Your task to perform on an android device: find which apps use the phone's location Image 0: 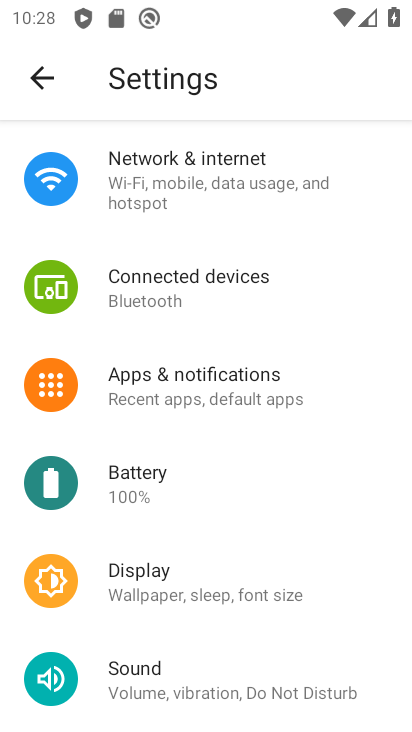
Step 0: press home button
Your task to perform on an android device: find which apps use the phone's location Image 1: 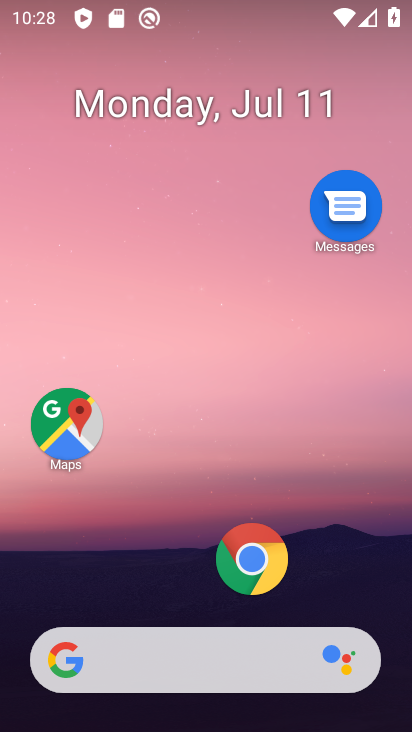
Step 1: drag from (356, 571) to (351, 140)
Your task to perform on an android device: find which apps use the phone's location Image 2: 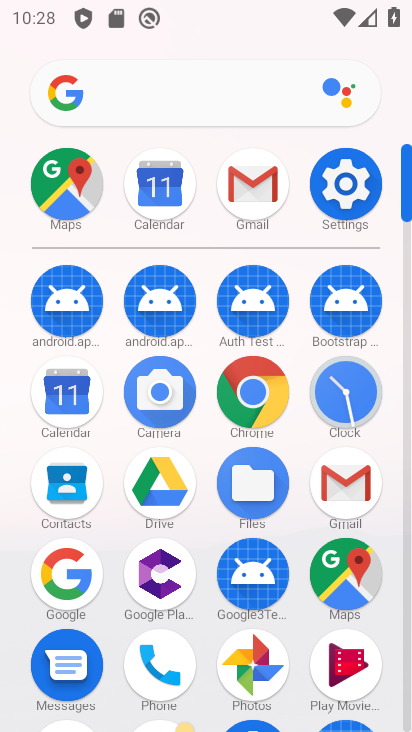
Step 2: click (354, 207)
Your task to perform on an android device: find which apps use the phone's location Image 3: 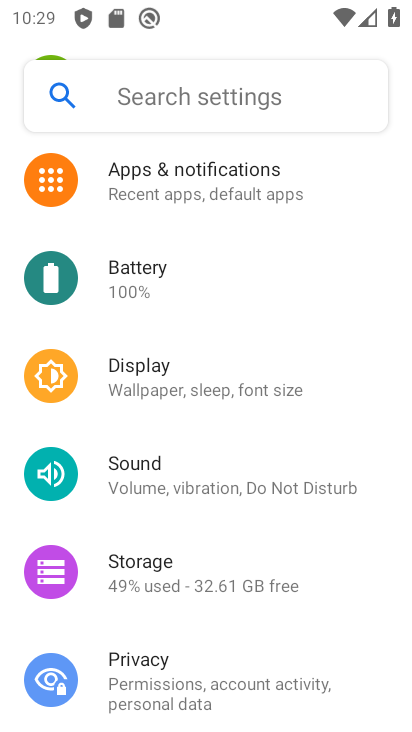
Step 3: drag from (335, 561) to (316, 365)
Your task to perform on an android device: find which apps use the phone's location Image 4: 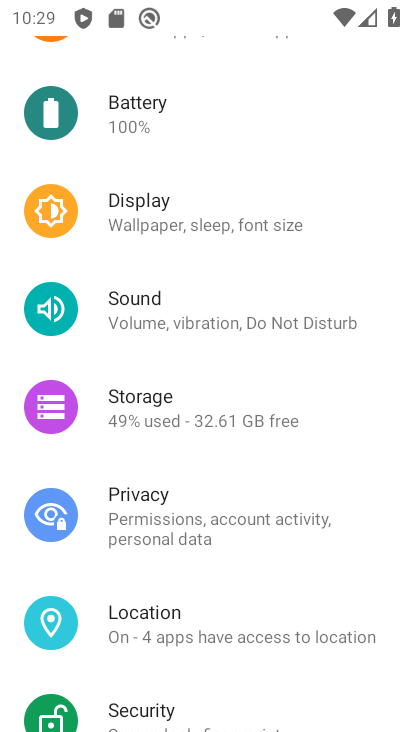
Step 4: drag from (338, 600) to (337, 422)
Your task to perform on an android device: find which apps use the phone's location Image 5: 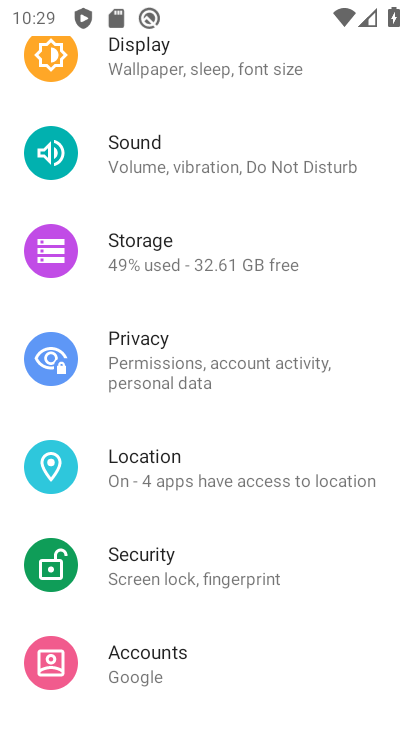
Step 5: drag from (345, 612) to (350, 428)
Your task to perform on an android device: find which apps use the phone's location Image 6: 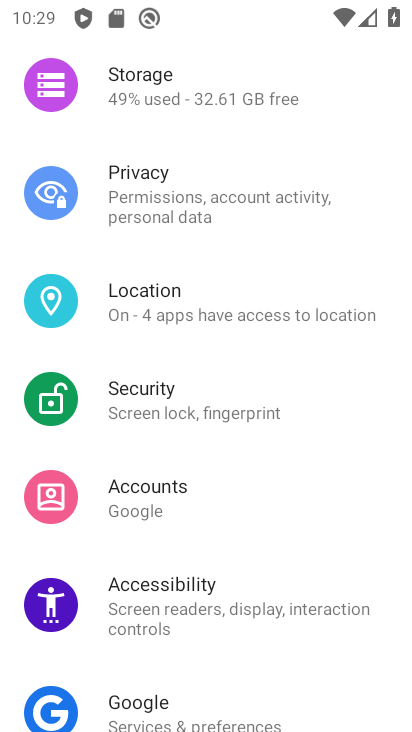
Step 6: drag from (315, 638) to (339, 421)
Your task to perform on an android device: find which apps use the phone's location Image 7: 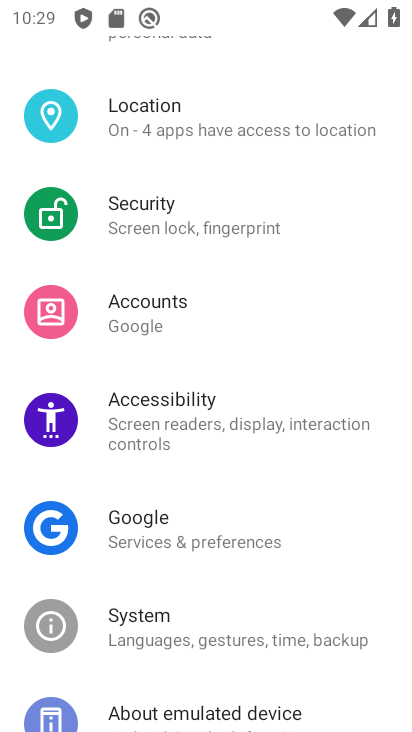
Step 7: drag from (346, 331) to (312, 669)
Your task to perform on an android device: find which apps use the phone's location Image 8: 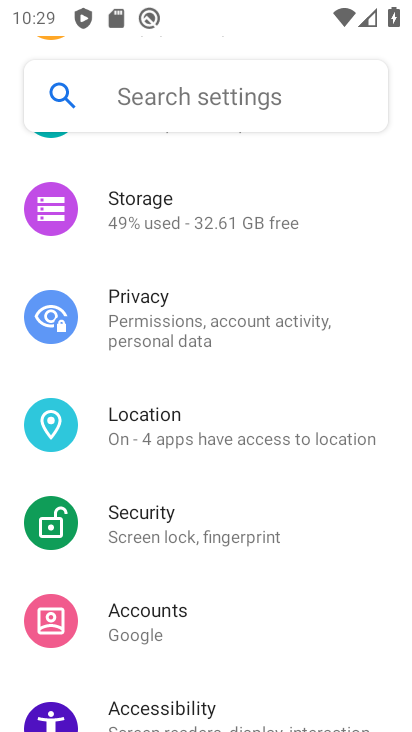
Step 8: drag from (346, 323) to (333, 590)
Your task to perform on an android device: find which apps use the phone's location Image 9: 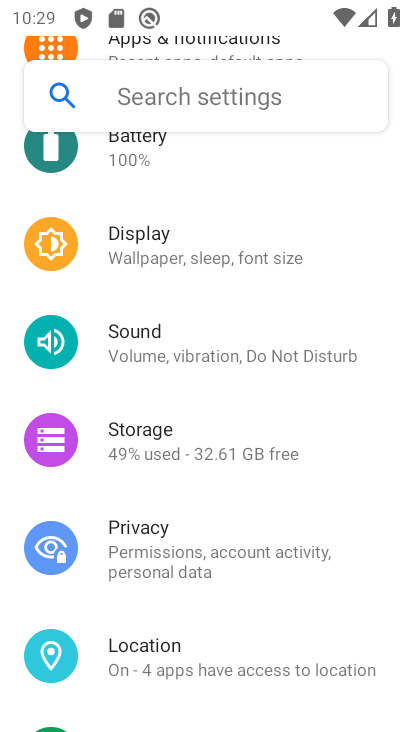
Step 9: drag from (339, 237) to (337, 436)
Your task to perform on an android device: find which apps use the phone's location Image 10: 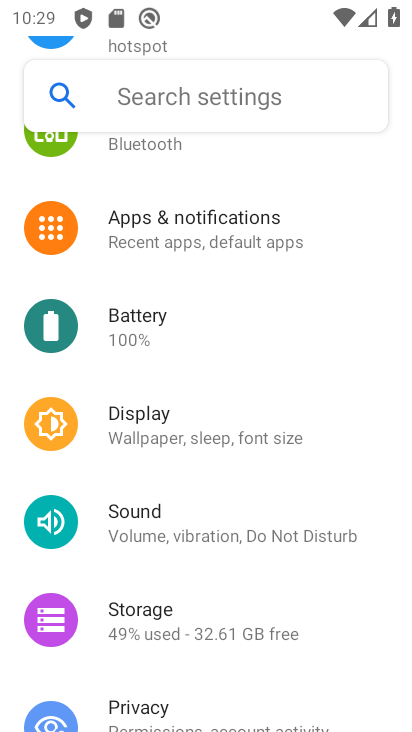
Step 10: drag from (337, 232) to (333, 425)
Your task to perform on an android device: find which apps use the phone's location Image 11: 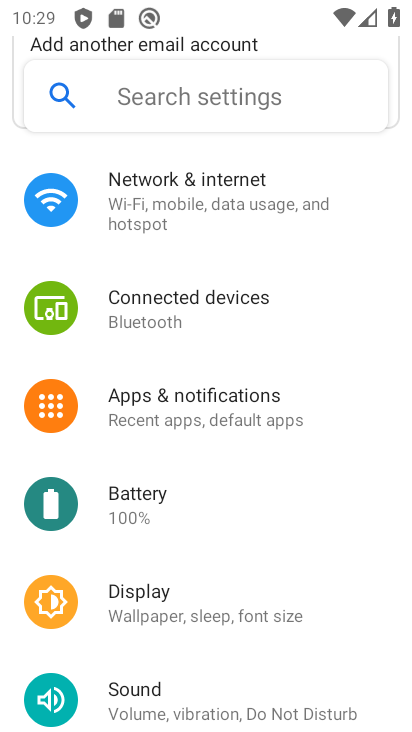
Step 11: drag from (323, 251) to (332, 457)
Your task to perform on an android device: find which apps use the phone's location Image 12: 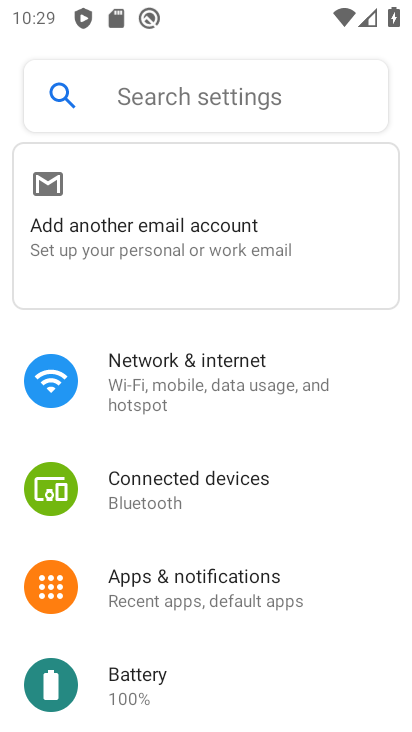
Step 12: drag from (350, 330) to (346, 506)
Your task to perform on an android device: find which apps use the phone's location Image 13: 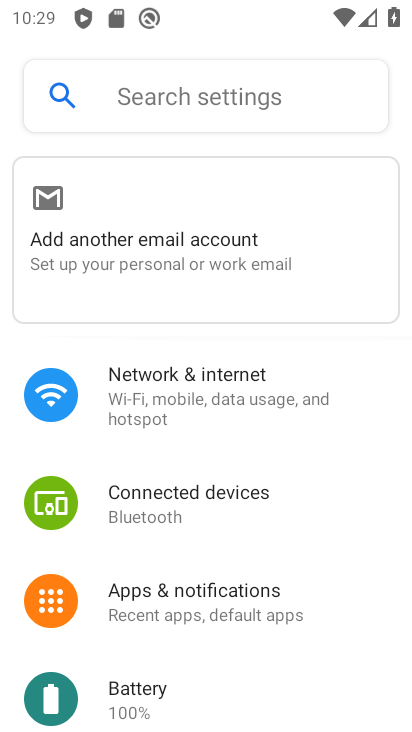
Step 13: drag from (339, 567) to (341, 410)
Your task to perform on an android device: find which apps use the phone's location Image 14: 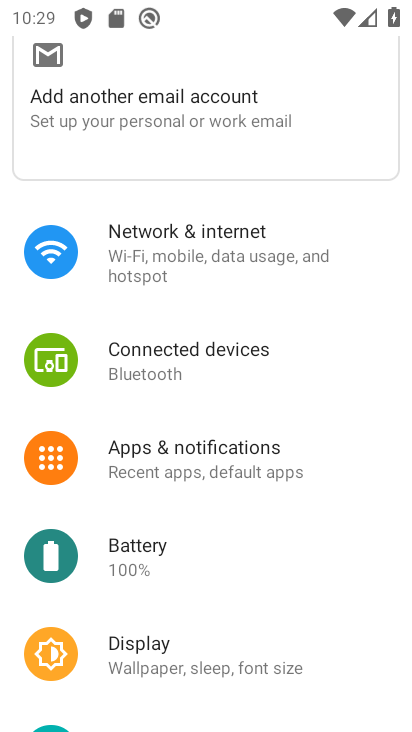
Step 14: drag from (324, 578) to (322, 389)
Your task to perform on an android device: find which apps use the phone's location Image 15: 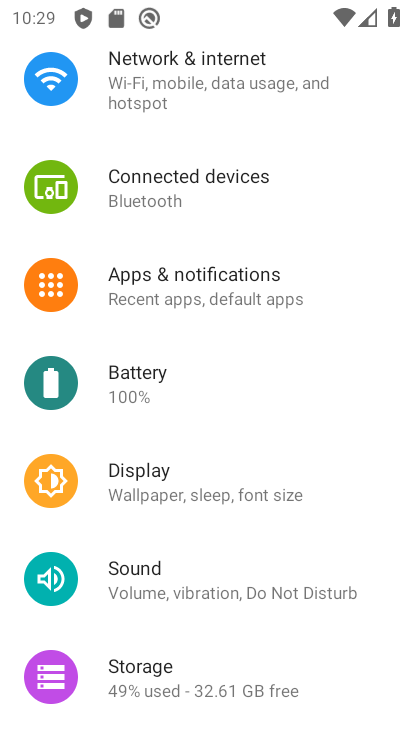
Step 15: drag from (324, 539) to (333, 315)
Your task to perform on an android device: find which apps use the phone's location Image 16: 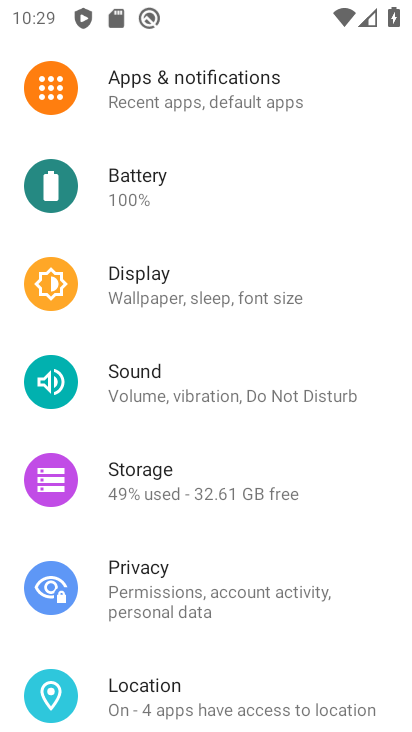
Step 16: drag from (342, 660) to (338, 417)
Your task to perform on an android device: find which apps use the phone's location Image 17: 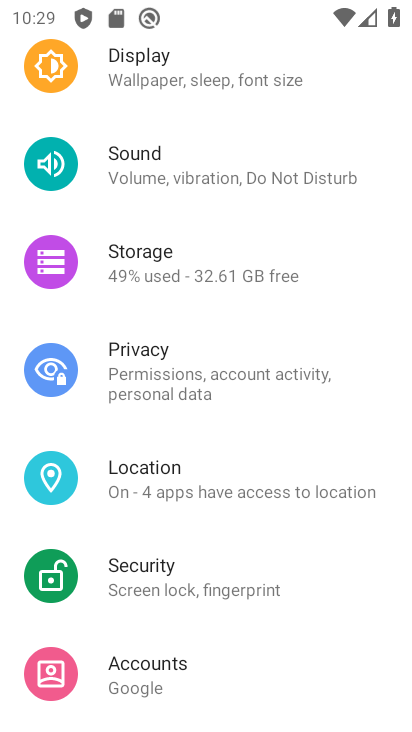
Step 17: click (243, 471)
Your task to perform on an android device: find which apps use the phone's location Image 18: 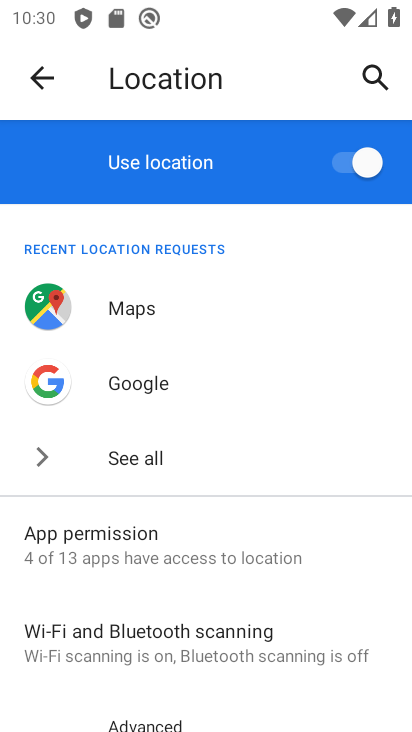
Step 18: click (225, 539)
Your task to perform on an android device: find which apps use the phone's location Image 19: 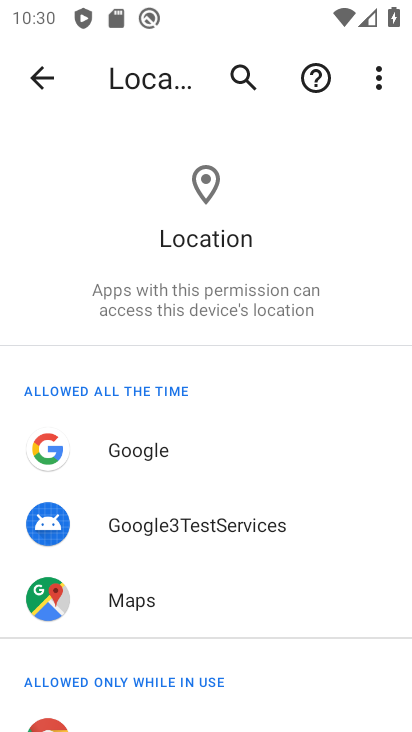
Step 19: drag from (336, 622) to (319, 456)
Your task to perform on an android device: find which apps use the phone's location Image 20: 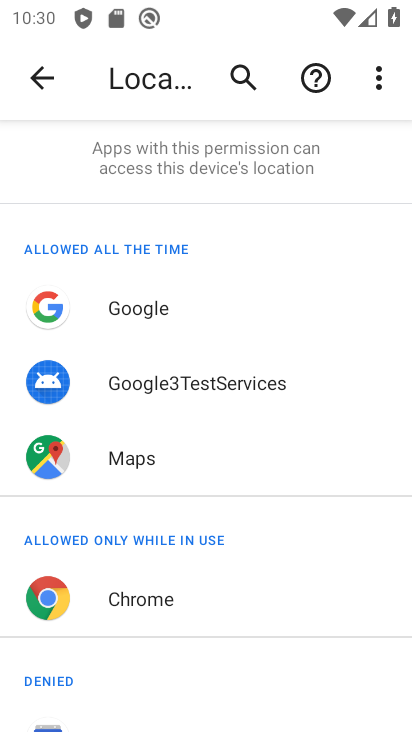
Step 20: drag from (325, 622) to (335, 415)
Your task to perform on an android device: find which apps use the phone's location Image 21: 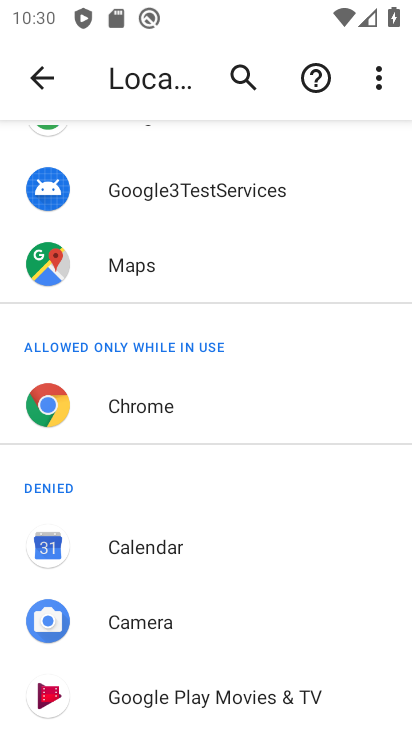
Step 21: drag from (303, 564) to (289, 307)
Your task to perform on an android device: find which apps use the phone's location Image 22: 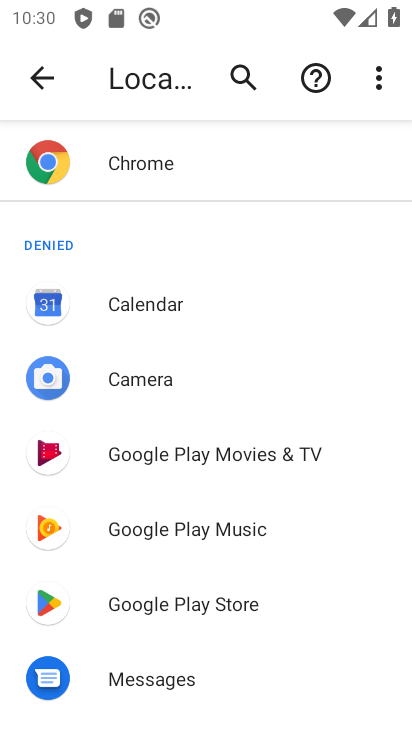
Step 22: drag from (289, 610) to (291, 414)
Your task to perform on an android device: find which apps use the phone's location Image 23: 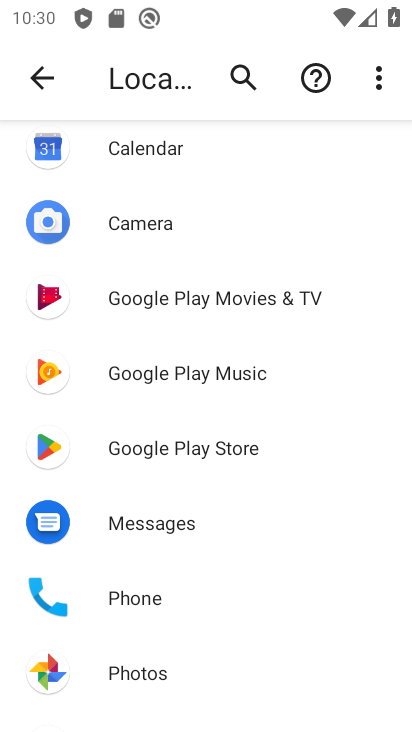
Step 23: click (161, 688)
Your task to perform on an android device: find which apps use the phone's location Image 24: 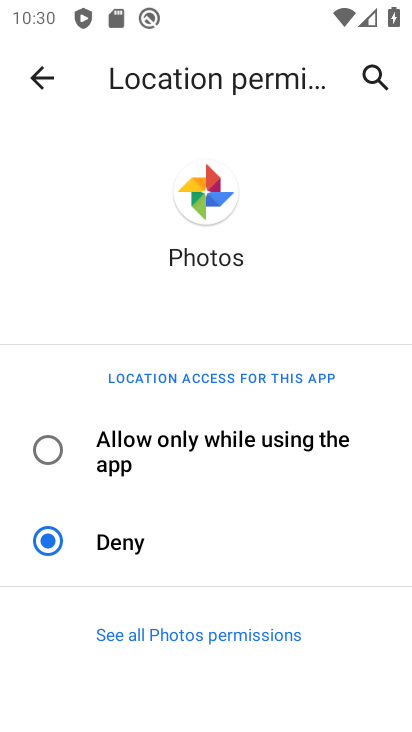
Step 24: click (51, 444)
Your task to perform on an android device: find which apps use the phone's location Image 25: 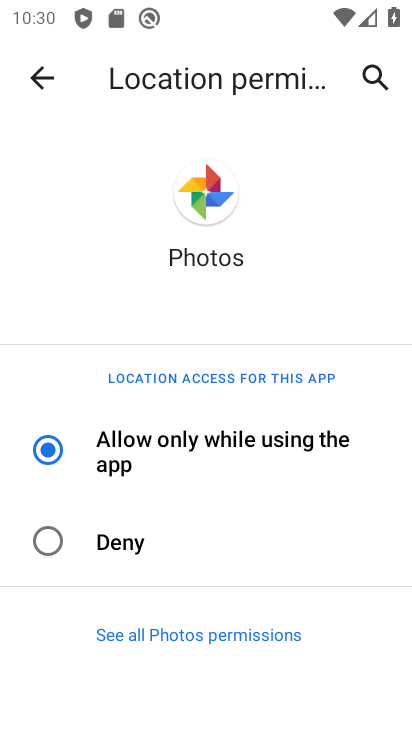
Step 25: task complete